Your task to perform on an android device: turn off priority inbox in the gmail app Image 0: 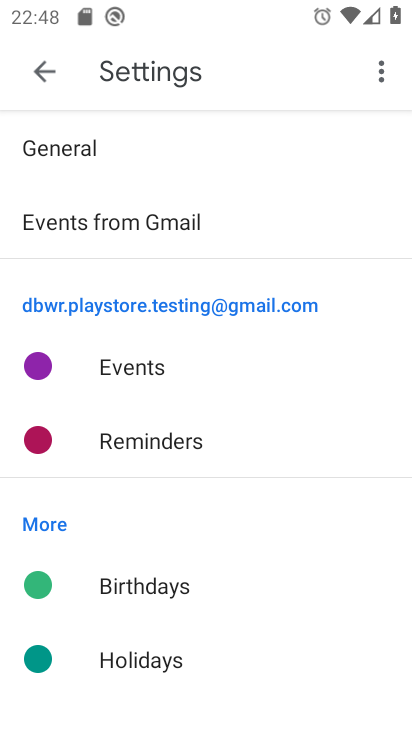
Step 0: press home button
Your task to perform on an android device: turn off priority inbox in the gmail app Image 1: 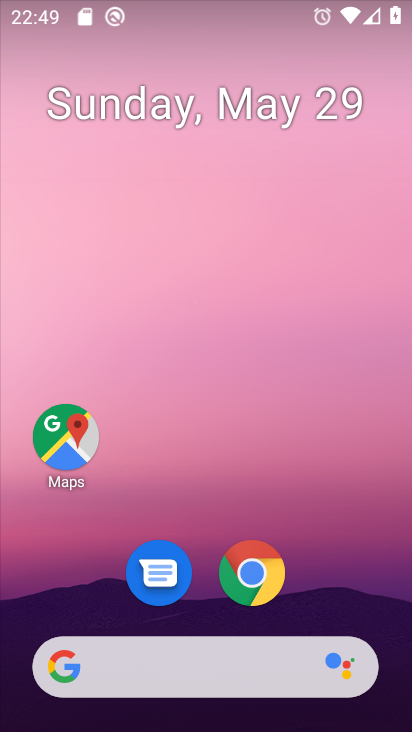
Step 1: drag from (215, 508) to (191, 3)
Your task to perform on an android device: turn off priority inbox in the gmail app Image 2: 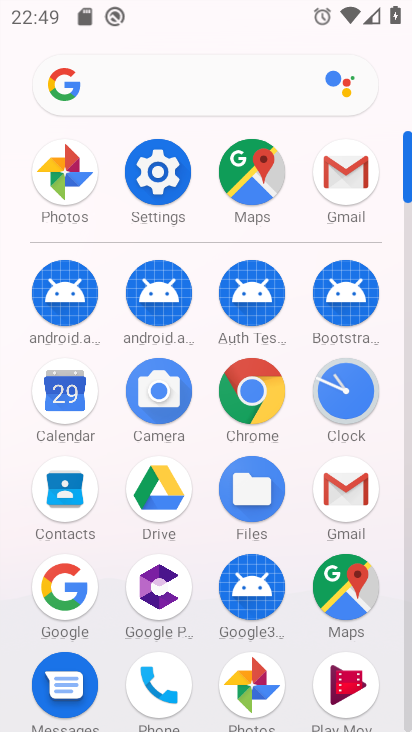
Step 2: click (340, 171)
Your task to perform on an android device: turn off priority inbox in the gmail app Image 3: 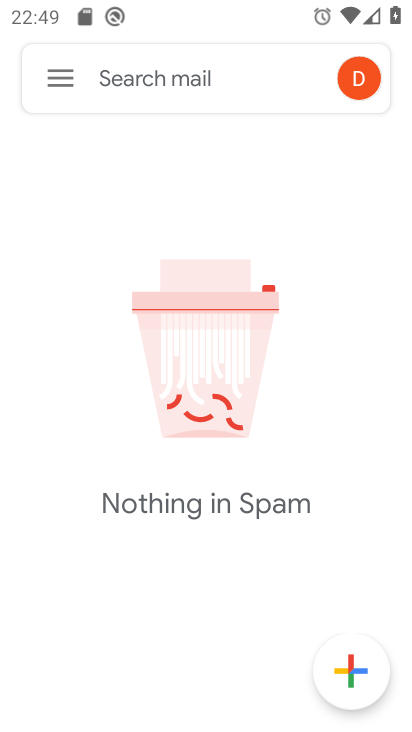
Step 3: click (55, 68)
Your task to perform on an android device: turn off priority inbox in the gmail app Image 4: 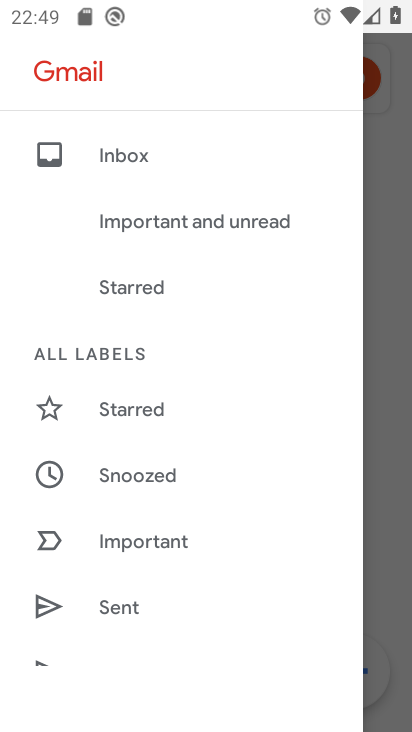
Step 4: drag from (194, 555) to (226, 96)
Your task to perform on an android device: turn off priority inbox in the gmail app Image 5: 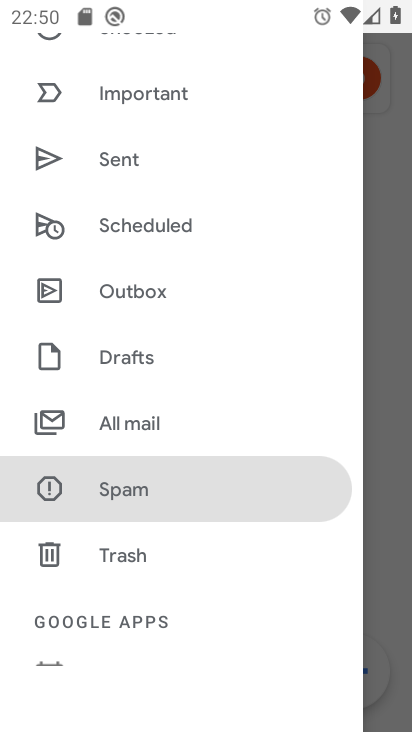
Step 5: drag from (205, 347) to (209, 40)
Your task to perform on an android device: turn off priority inbox in the gmail app Image 6: 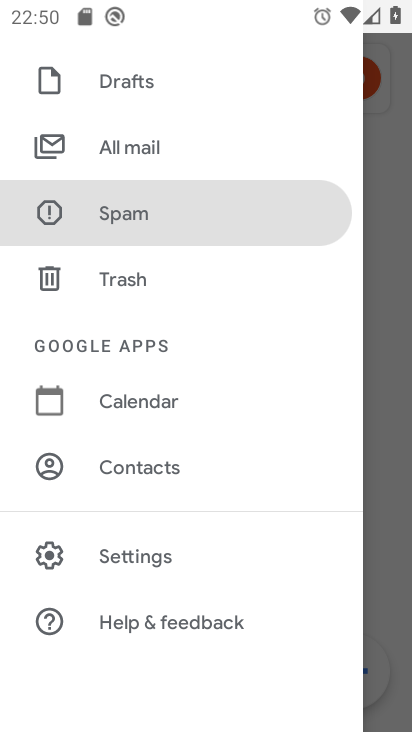
Step 6: click (146, 551)
Your task to perform on an android device: turn off priority inbox in the gmail app Image 7: 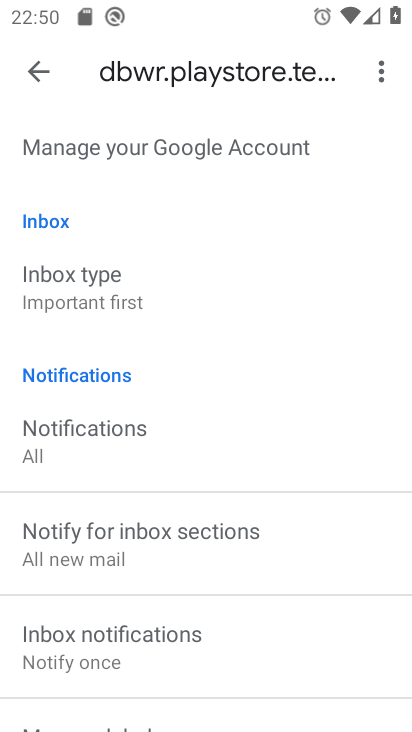
Step 7: click (250, 617)
Your task to perform on an android device: turn off priority inbox in the gmail app Image 8: 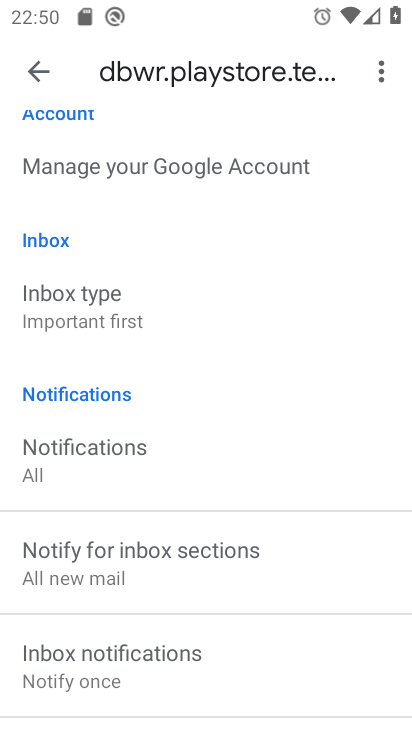
Step 8: click (86, 302)
Your task to perform on an android device: turn off priority inbox in the gmail app Image 9: 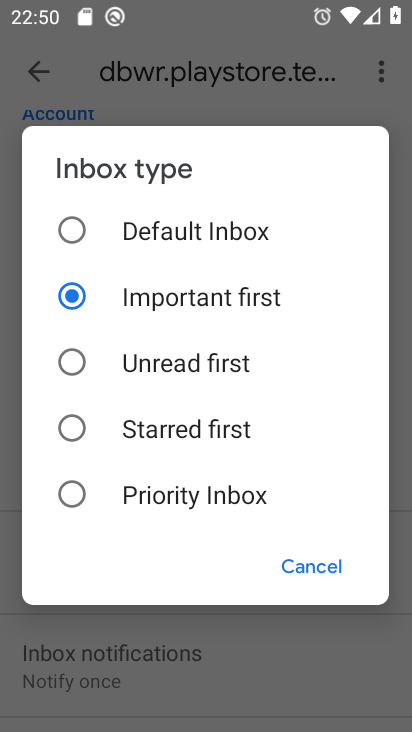
Step 9: click (72, 226)
Your task to perform on an android device: turn off priority inbox in the gmail app Image 10: 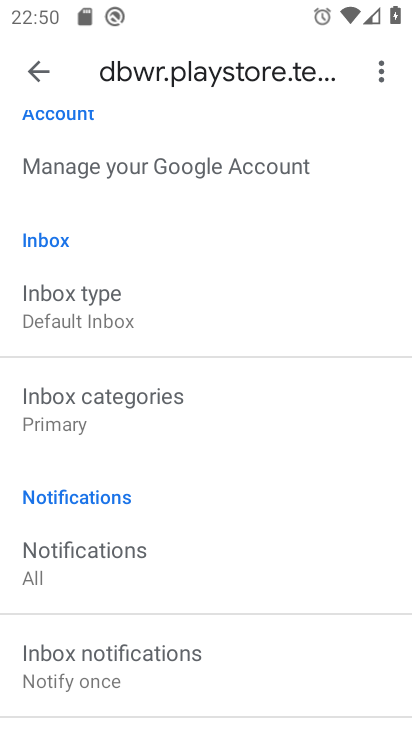
Step 10: task complete